Your task to perform on an android device: add a contact in the contacts app Image 0: 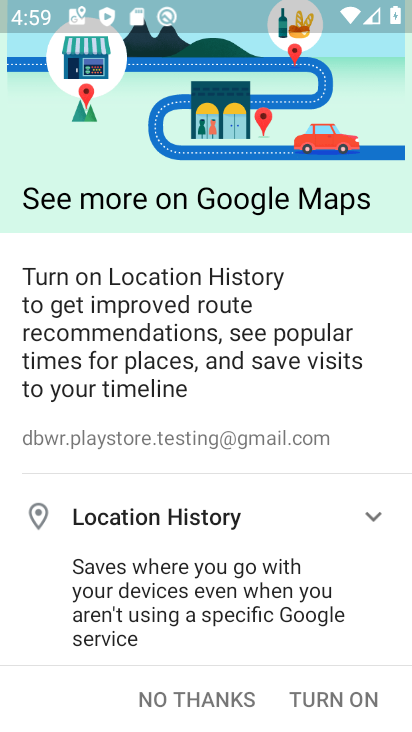
Step 0: press home button
Your task to perform on an android device: add a contact in the contacts app Image 1: 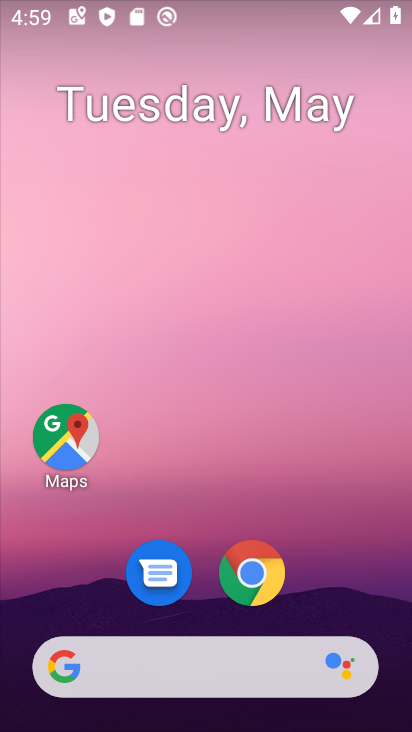
Step 1: drag from (186, 632) to (174, 160)
Your task to perform on an android device: add a contact in the contacts app Image 2: 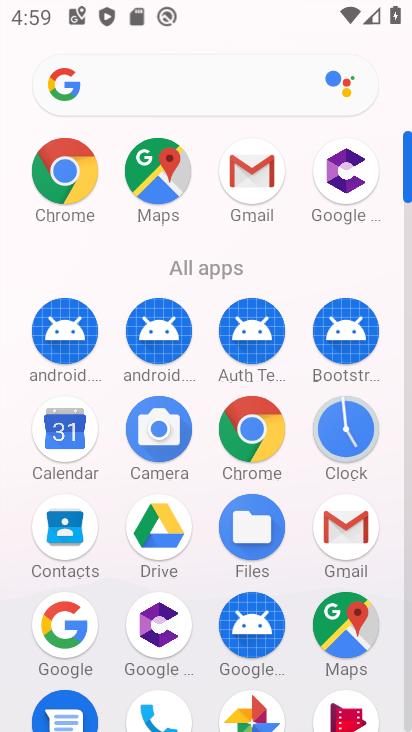
Step 2: click (157, 712)
Your task to perform on an android device: add a contact in the contacts app Image 3: 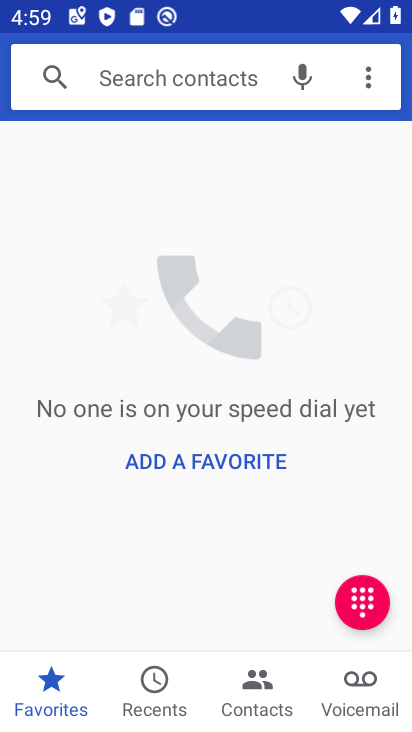
Step 3: click (241, 679)
Your task to perform on an android device: add a contact in the contacts app Image 4: 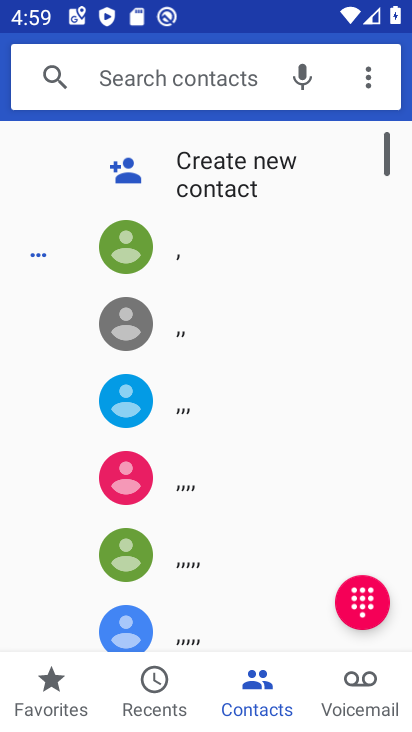
Step 4: click (204, 151)
Your task to perform on an android device: add a contact in the contacts app Image 5: 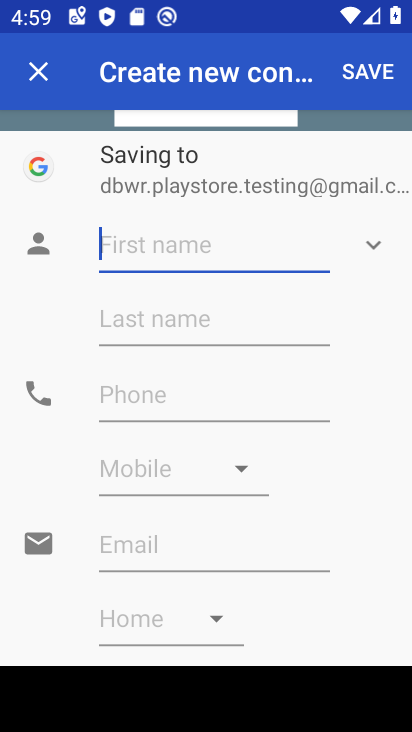
Step 5: type "ukhyjguc"
Your task to perform on an android device: add a contact in the contacts app Image 6: 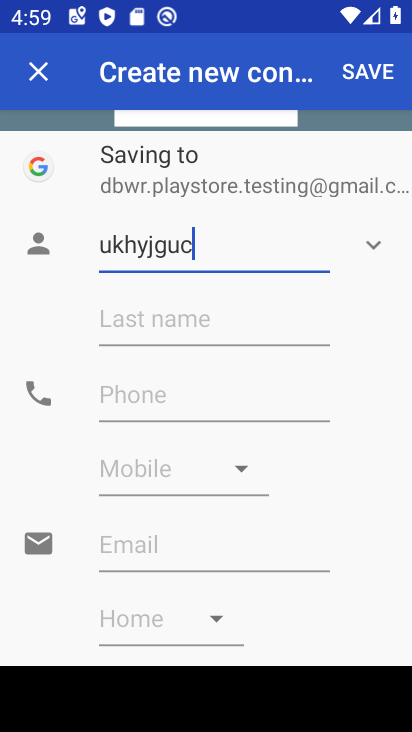
Step 6: click (145, 404)
Your task to perform on an android device: add a contact in the contacts app Image 7: 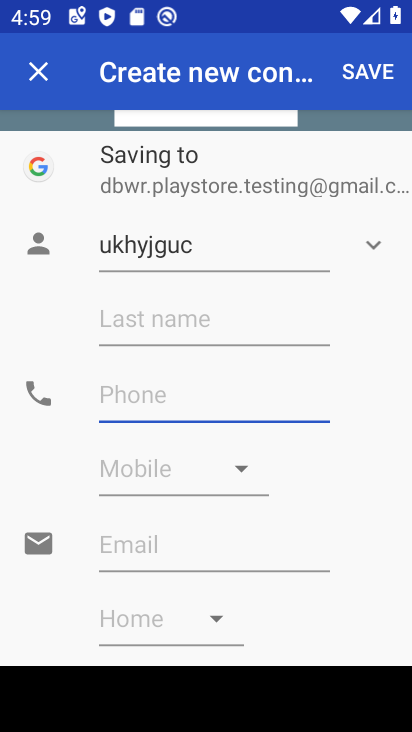
Step 7: type "8765456778"
Your task to perform on an android device: add a contact in the contacts app Image 8: 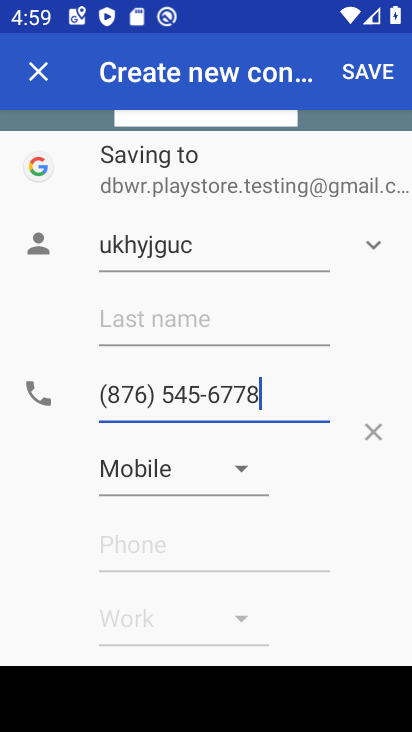
Step 8: type ""
Your task to perform on an android device: add a contact in the contacts app Image 9: 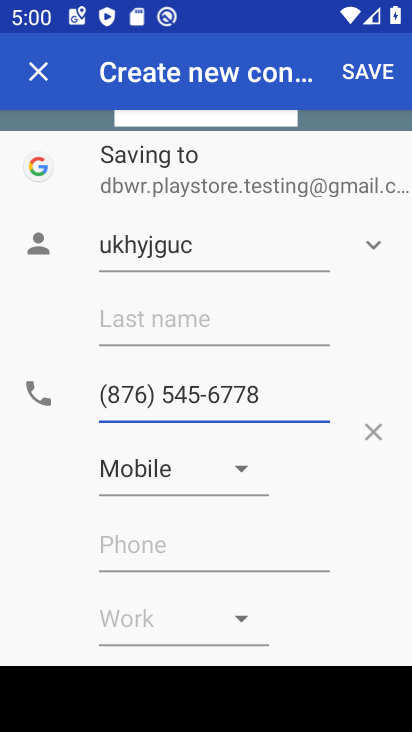
Step 9: click (376, 77)
Your task to perform on an android device: add a contact in the contacts app Image 10: 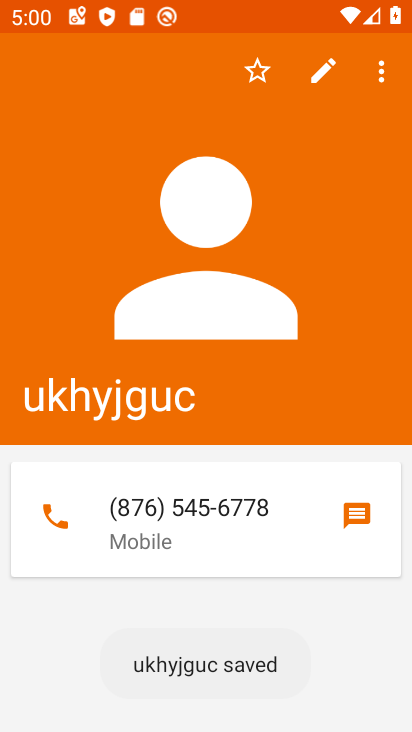
Step 10: task complete